Your task to perform on an android device: add a contact Image 0: 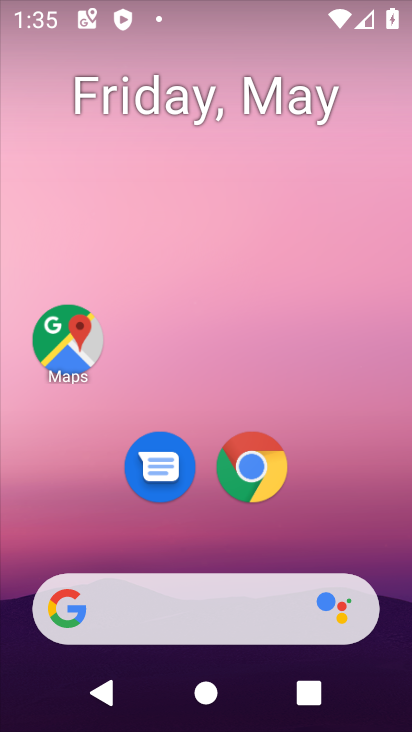
Step 0: drag from (372, 509) to (295, 1)
Your task to perform on an android device: add a contact Image 1: 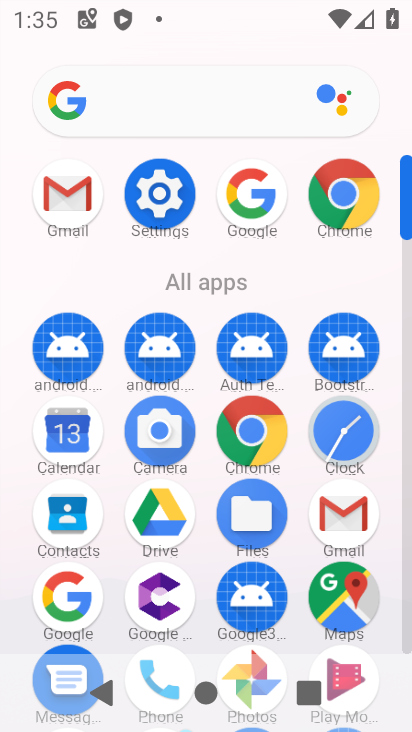
Step 1: drag from (391, 526) to (361, 299)
Your task to perform on an android device: add a contact Image 2: 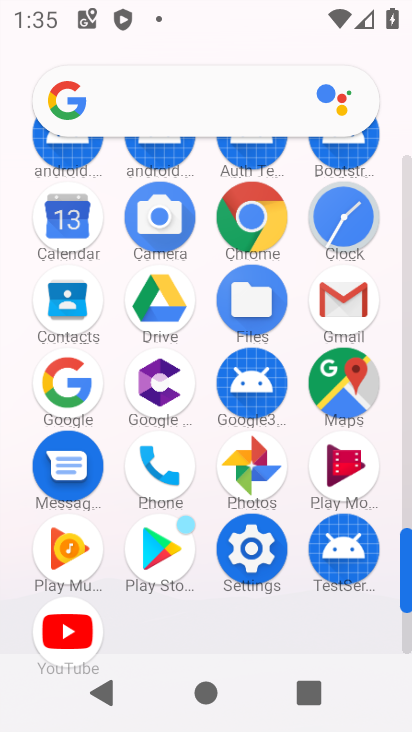
Step 2: click (140, 474)
Your task to perform on an android device: add a contact Image 3: 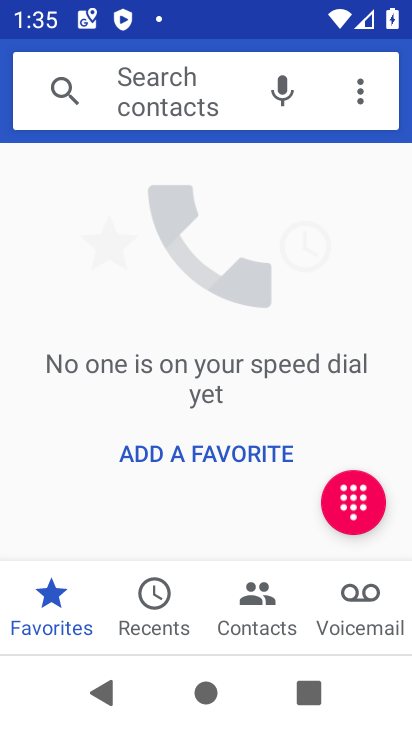
Step 3: click (246, 634)
Your task to perform on an android device: add a contact Image 4: 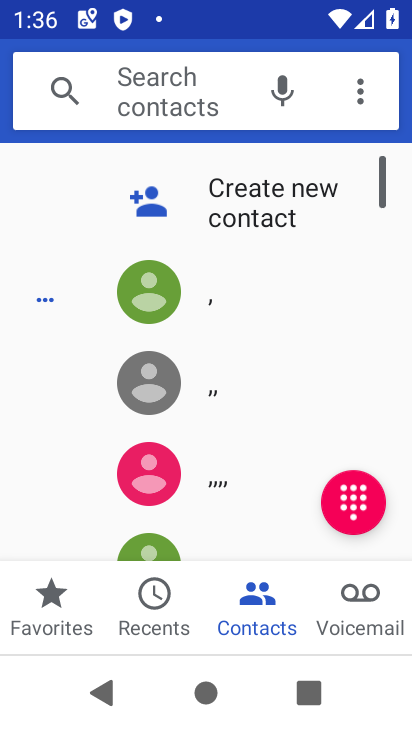
Step 4: click (231, 209)
Your task to perform on an android device: add a contact Image 5: 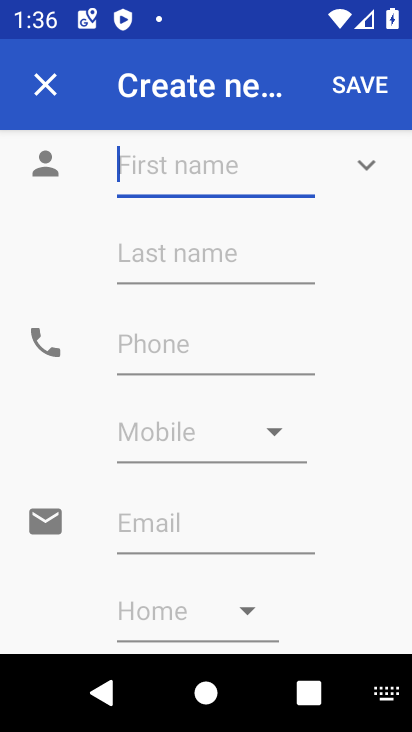
Step 5: type "krishna"
Your task to perform on an android device: add a contact Image 6: 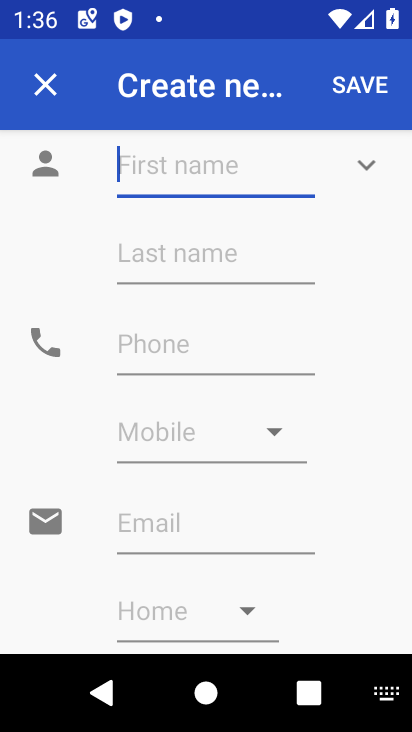
Step 6: click (219, 340)
Your task to perform on an android device: add a contact Image 7: 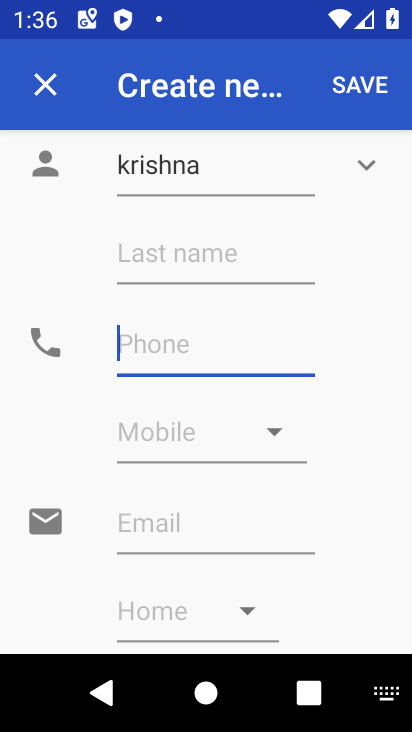
Step 7: click (156, 345)
Your task to perform on an android device: add a contact Image 8: 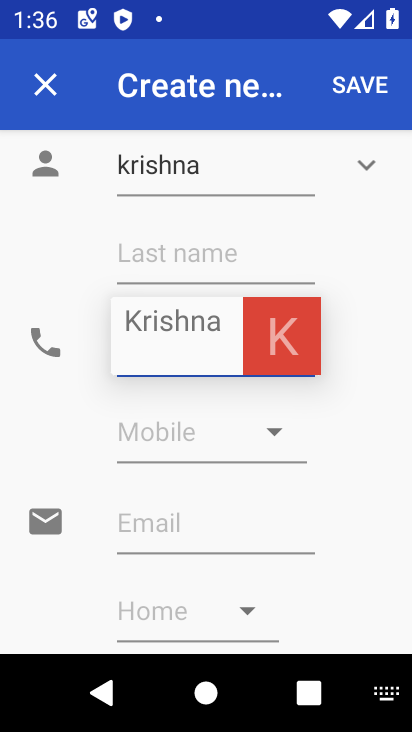
Step 8: click (389, 340)
Your task to perform on an android device: add a contact Image 9: 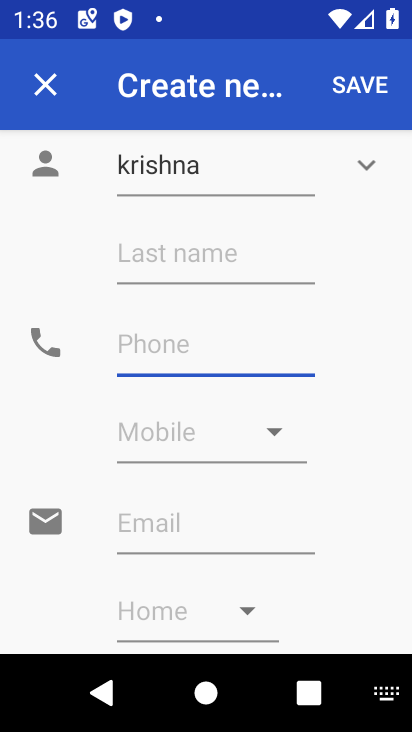
Step 9: type "63636363636"
Your task to perform on an android device: add a contact Image 10: 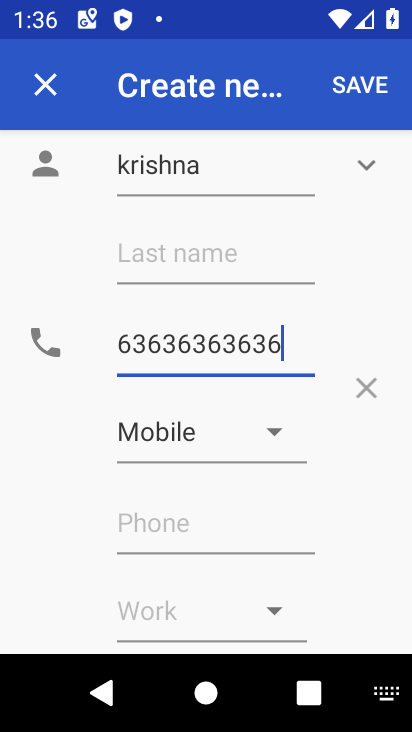
Step 10: click (348, 67)
Your task to perform on an android device: add a contact Image 11: 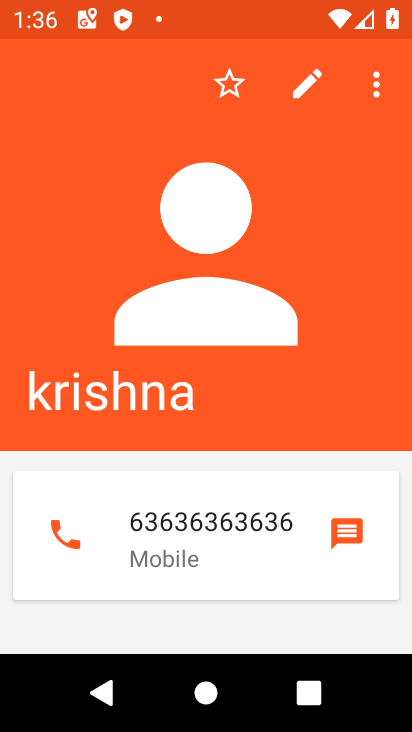
Step 11: task complete